Your task to perform on an android device: What's on my calendar tomorrow? Image 0: 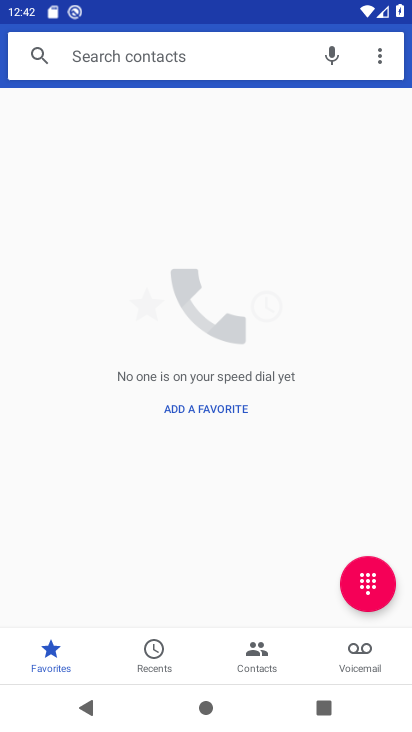
Step 0: press home button
Your task to perform on an android device: What's on my calendar tomorrow? Image 1: 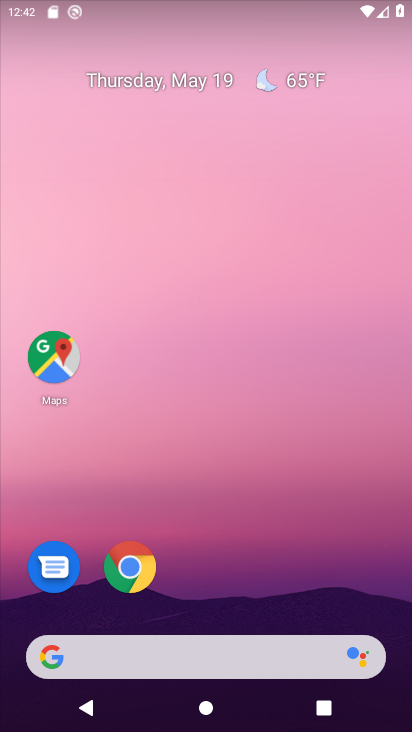
Step 1: click (199, 77)
Your task to perform on an android device: What's on my calendar tomorrow? Image 2: 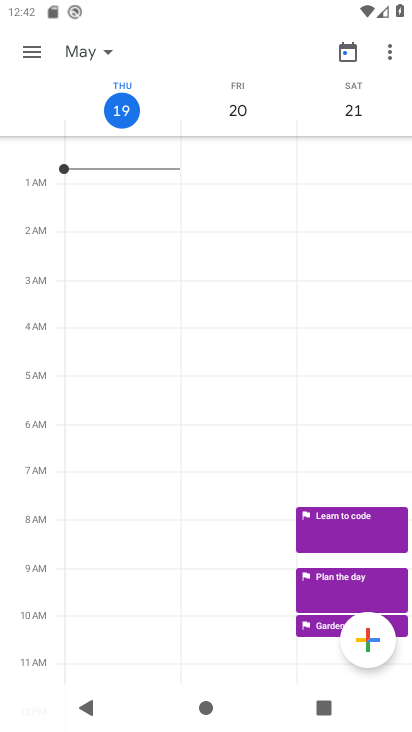
Step 2: click (27, 56)
Your task to perform on an android device: What's on my calendar tomorrow? Image 3: 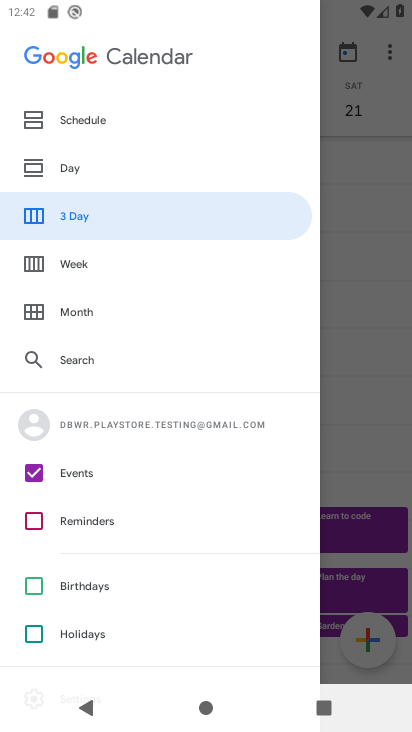
Step 3: click (79, 122)
Your task to perform on an android device: What's on my calendar tomorrow? Image 4: 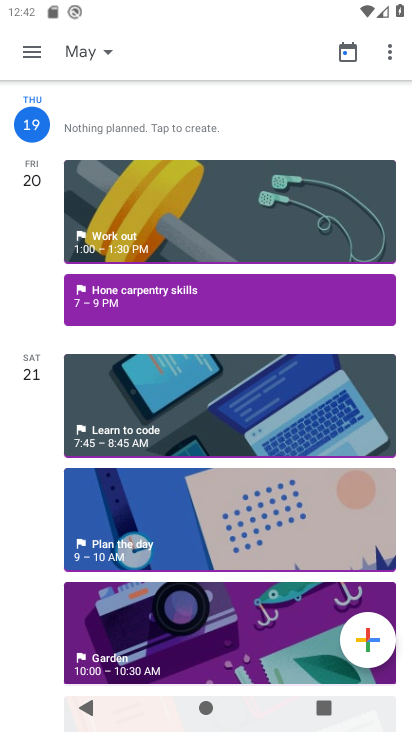
Step 4: task complete